Your task to perform on an android device: move a message to another label in the gmail app Image 0: 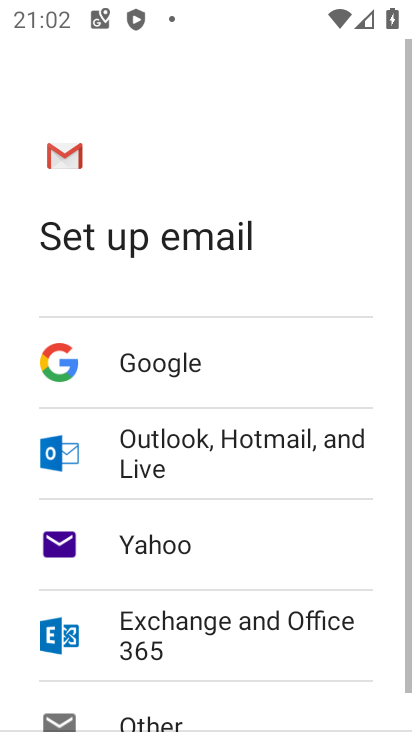
Step 0: press home button
Your task to perform on an android device: move a message to another label in the gmail app Image 1: 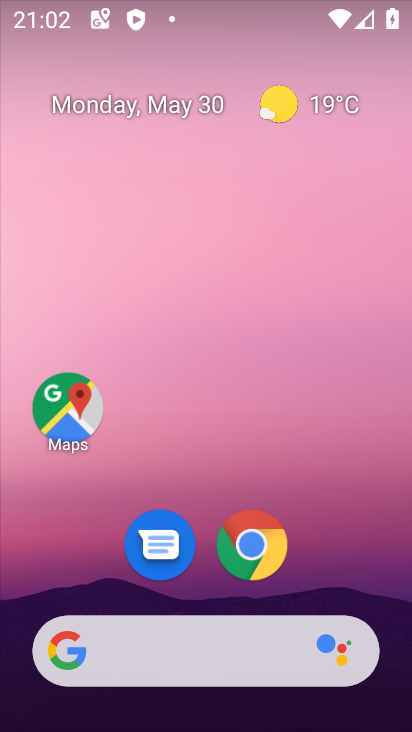
Step 1: drag from (334, 563) to (343, 170)
Your task to perform on an android device: move a message to another label in the gmail app Image 2: 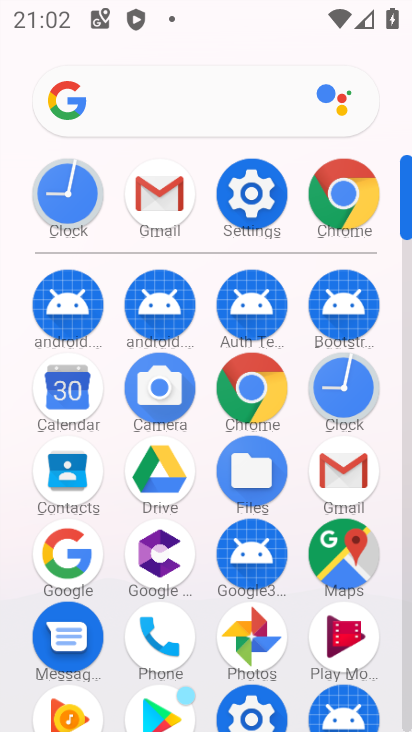
Step 2: click (338, 475)
Your task to perform on an android device: move a message to another label in the gmail app Image 3: 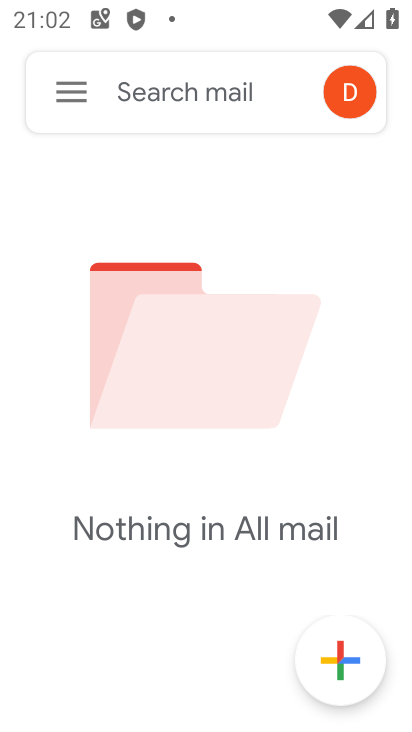
Step 3: click (75, 81)
Your task to perform on an android device: move a message to another label in the gmail app Image 4: 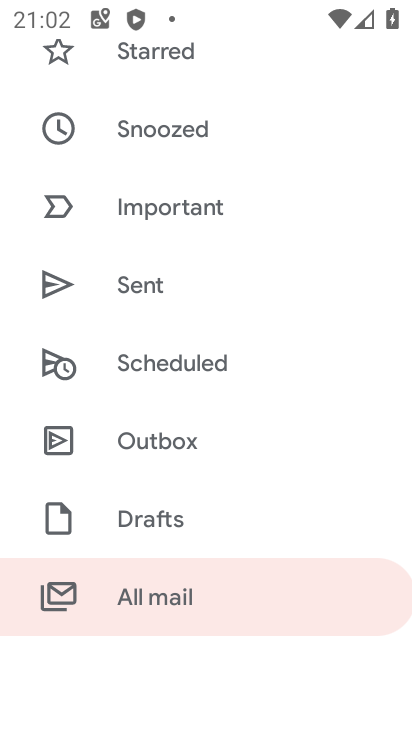
Step 4: drag from (327, 142) to (190, 553)
Your task to perform on an android device: move a message to another label in the gmail app Image 5: 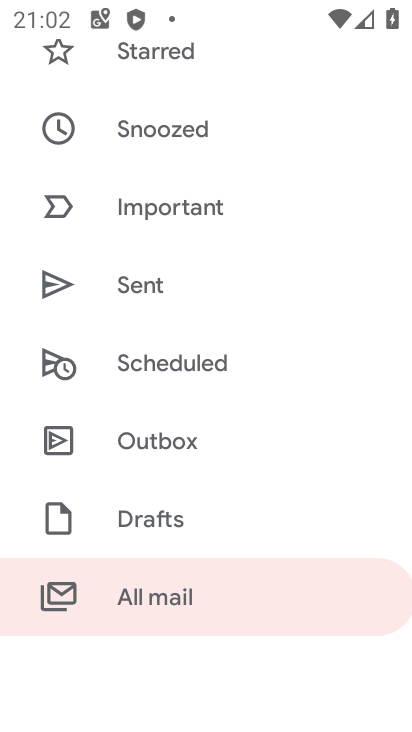
Step 5: drag from (237, 151) to (209, 573)
Your task to perform on an android device: move a message to another label in the gmail app Image 6: 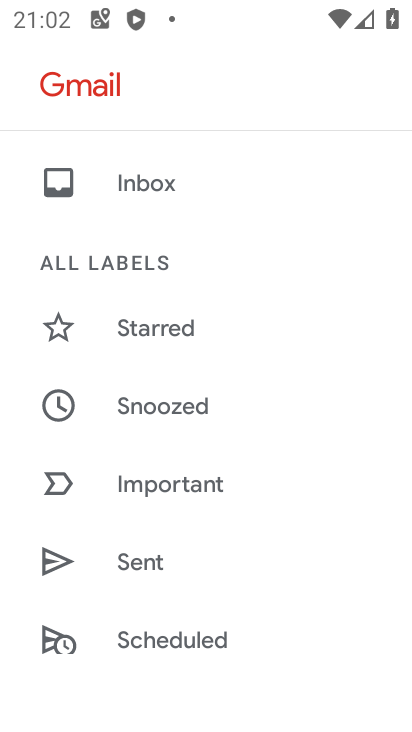
Step 6: click (153, 179)
Your task to perform on an android device: move a message to another label in the gmail app Image 7: 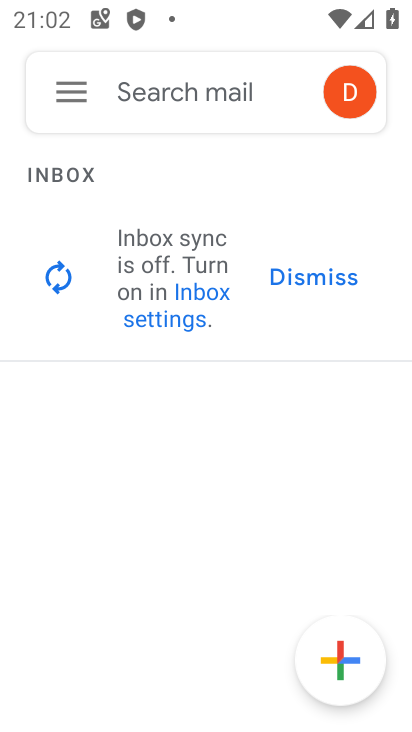
Step 7: task complete